Your task to perform on an android device: clear all cookies in the chrome app Image 0: 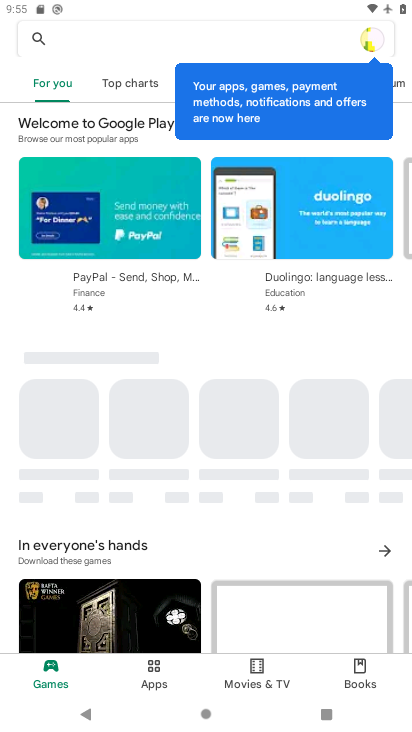
Step 0: press home button
Your task to perform on an android device: clear all cookies in the chrome app Image 1: 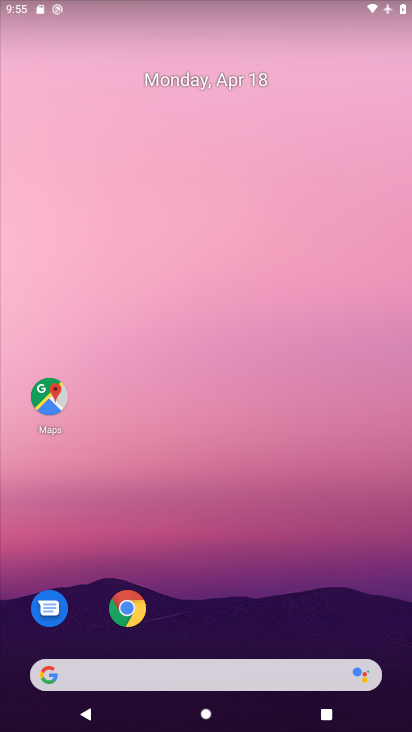
Step 1: click (121, 618)
Your task to perform on an android device: clear all cookies in the chrome app Image 2: 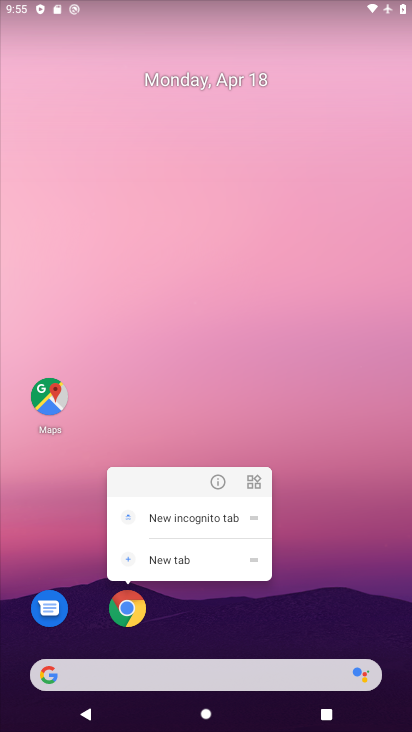
Step 2: click (121, 618)
Your task to perform on an android device: clear all cookies in the chrome app Image 3: 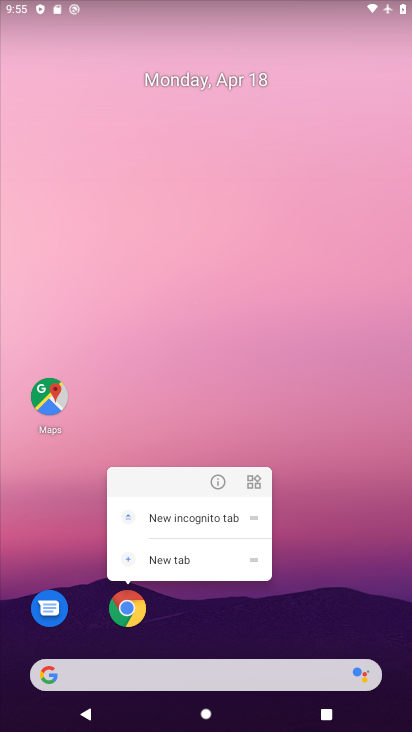
Step 3: click (121, 618)
Your task to perform on an android device: clear all cookies in the chrome app Image 4: 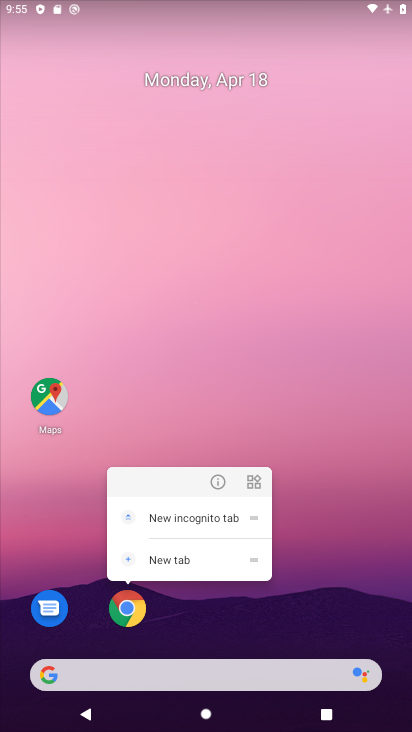
Step 4: click (121, 618)
Your task to perform on an android device: clear all cookies in the chrome app Image 5: 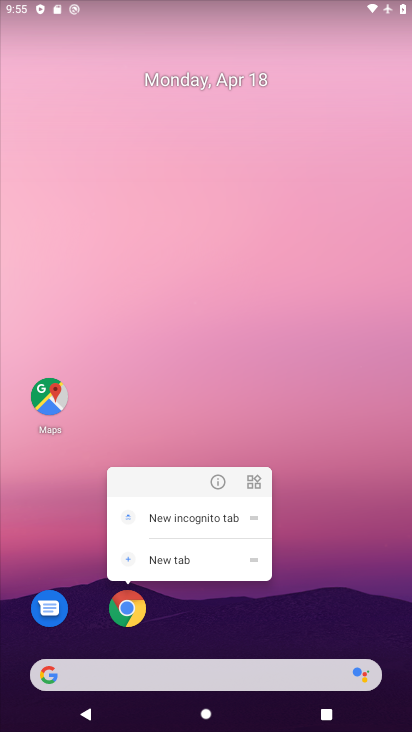
Step 5: click (127, 614)
Your task to perform on an android device: clear all cookies in the chrome app Image 6: 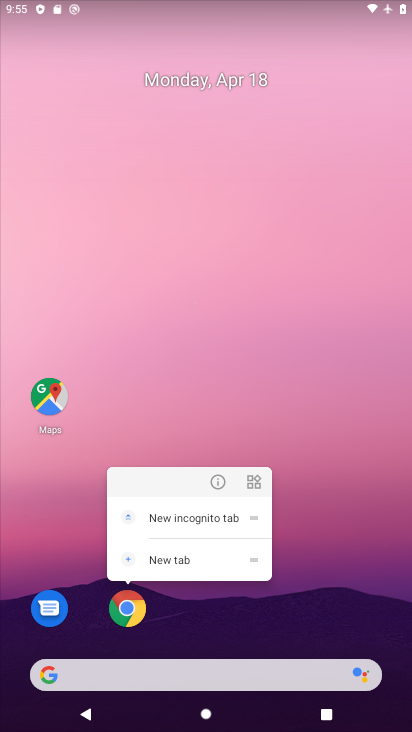
Step 6: click (141, 614)
Your task to perform on an android device: clear all cookies in the chrome app Image 7: 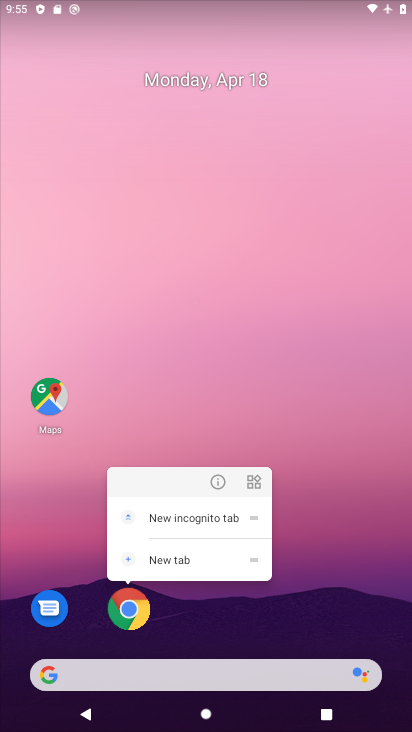
Step 7: click (214, 628)
Your task to perform on an android device: clear all cookies in the chrome app Image 8: 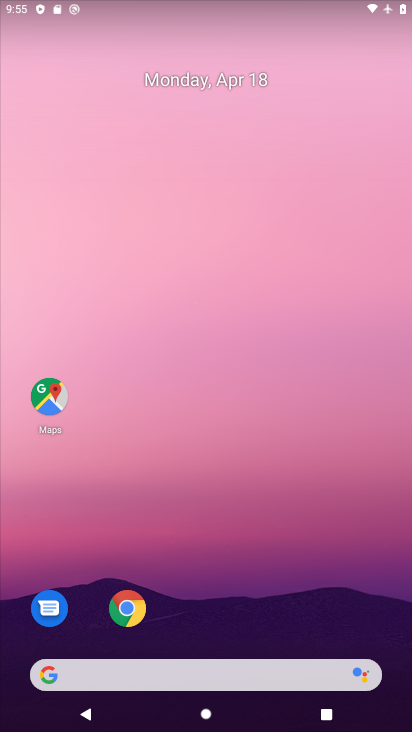
Step 8: click (130, 613)
Your task to perform on an android device: clear all cookies in the chrome app Image 9: 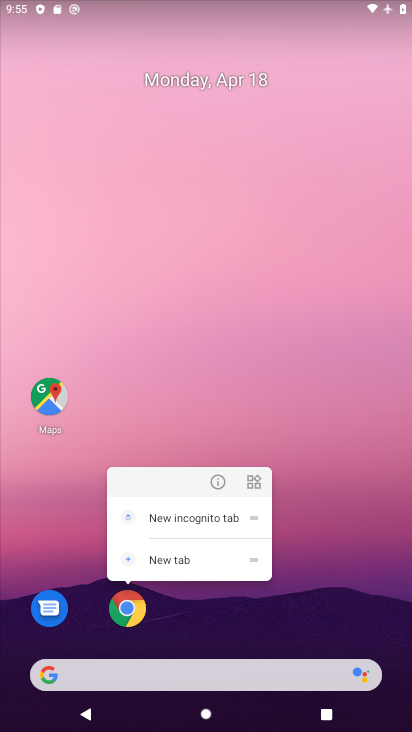
Step 9: drag from (130, 613) to (177, 622)
Your task to perform on an android device: clear all cookies in the chrome app Image 10: 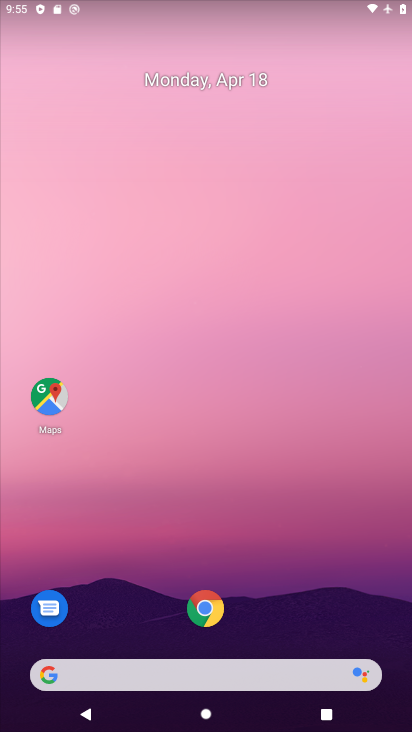
Step 10: click (207, 612)
Your task to perform on an android device: clear all cookies in the chrome app Image 11: 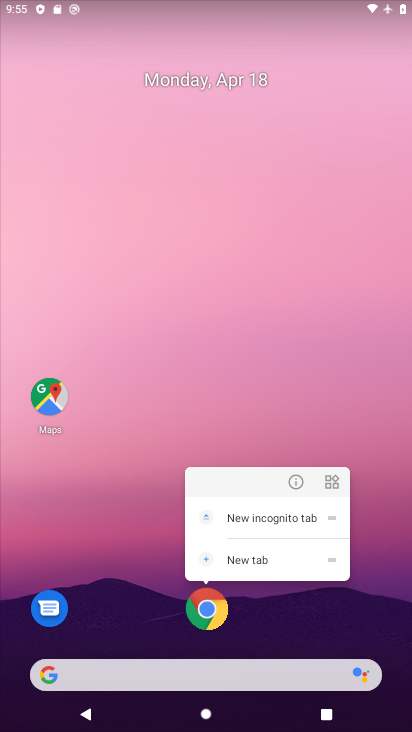
Step 11: click (207, 612)
Your task to perform on an android device: clear all cookies in the chrome app Image 12: 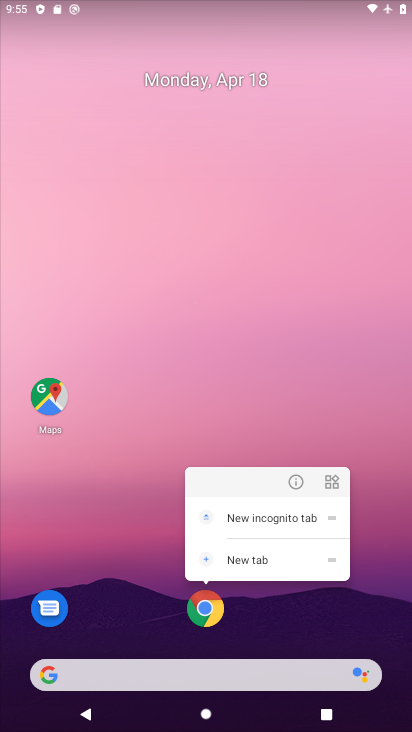
Step 12: click (207, 612)
Your task to perform on an android device: clear all cookies in the chrome app Image 13: 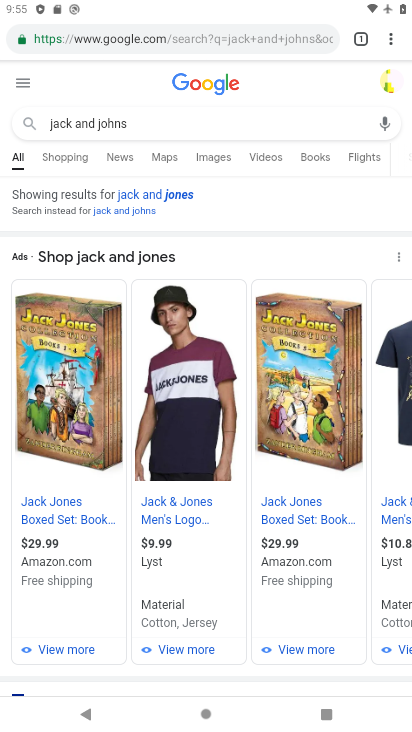
Step 13: drag from (391, 38) to (295, 219)
Your task to perform on an android device: clear all cookies in the chrome app Image 14: 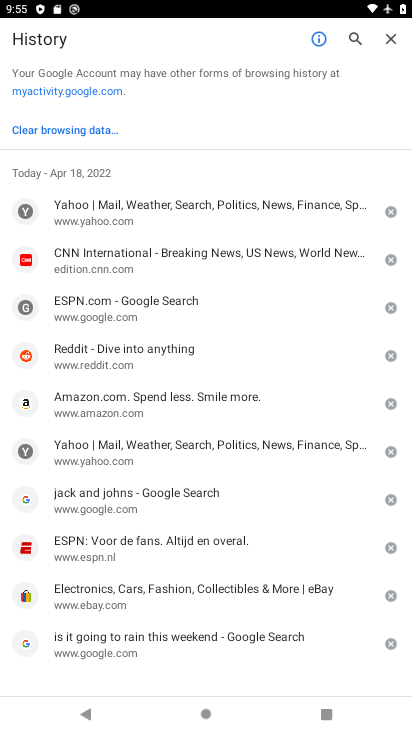
Step 14: click (81, 131)
Your task to perform on an android device: clear all cookies in the chrome app Image 15: 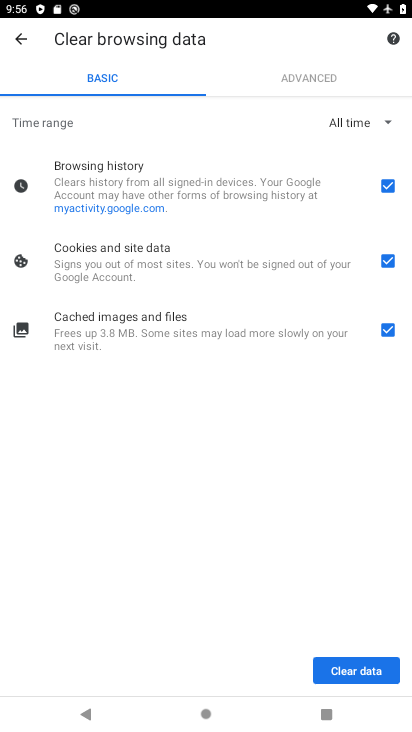
Step 15: click (384, 180)
Your task to perform on an android device: clear all cookies in the chrome app Image 16: 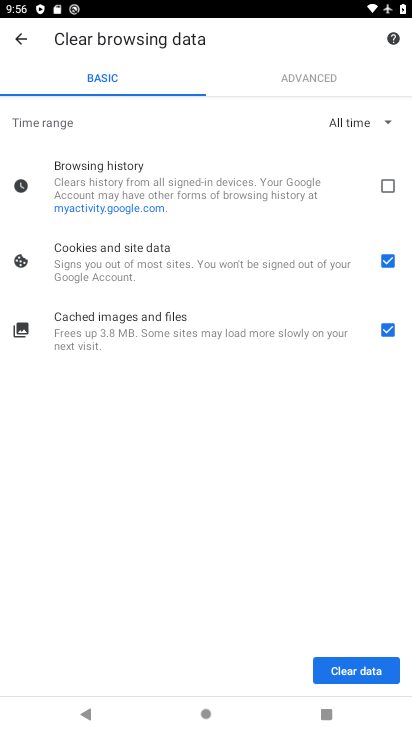
Step 16: click (363, 680)
Your task to perform on an android device: clear all cookies in the chrome app Image 17: 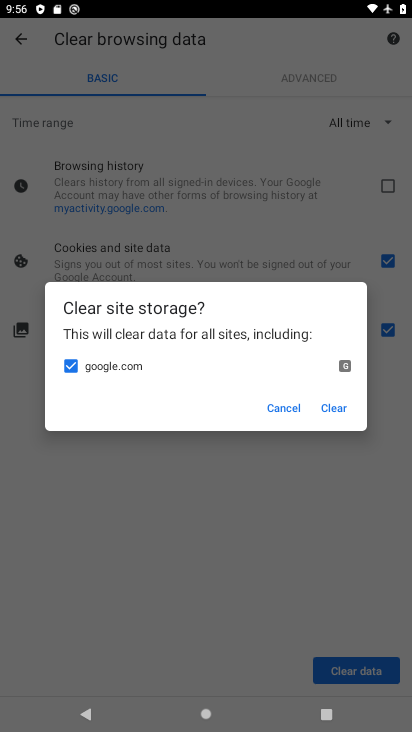
Step 17: click (337, 410)
Your task to perform on an android device: clear all cookies in the chrome app Image 18: 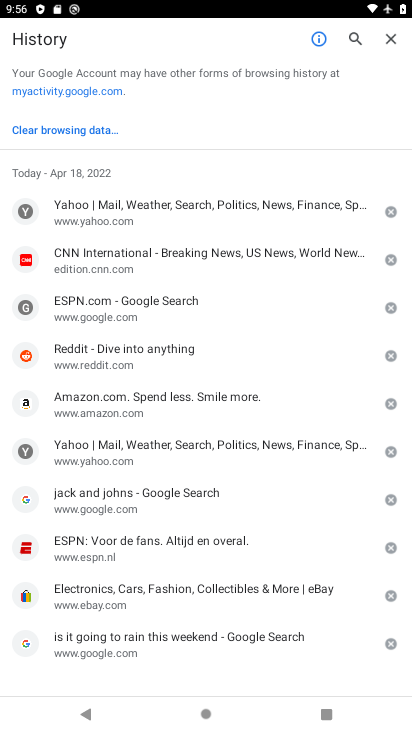
Step 18: task complete